Your task to perform on an android device: search for outdoor chairs on article.com Image 0: 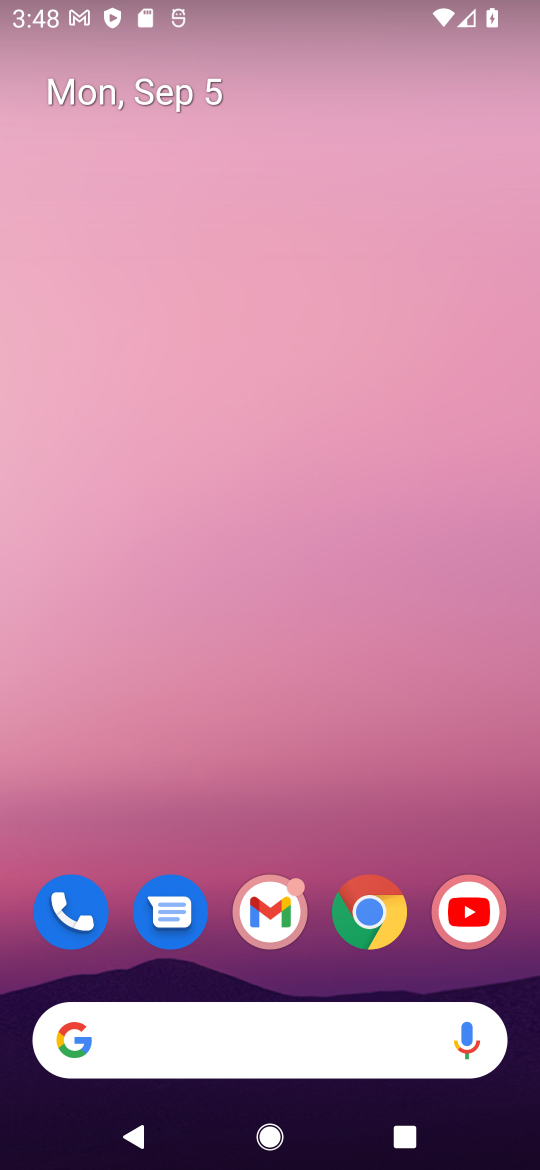
Step 0: click (381, 923)
Your task to perform on an android device: search for outdoor chairs on article.com Image 1: 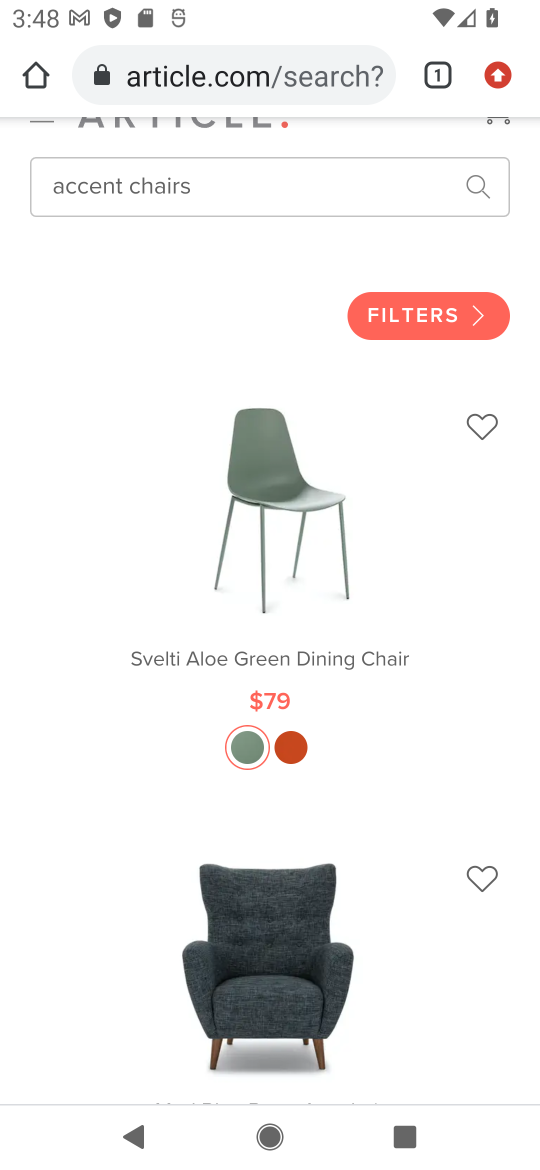
Step 1: click (246, 73)
Your task to perform on an android device: search for outdoor chairs on article.com Image 2: 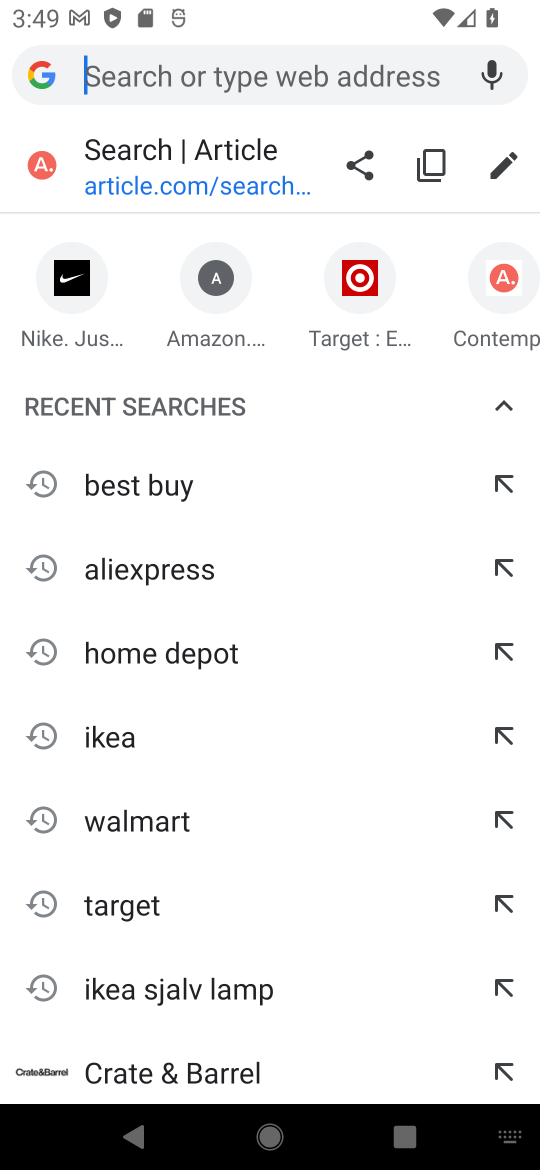
Step 2: press enter
Your task to perform on an android device: search for outdoor chairs on article.com Image 3: 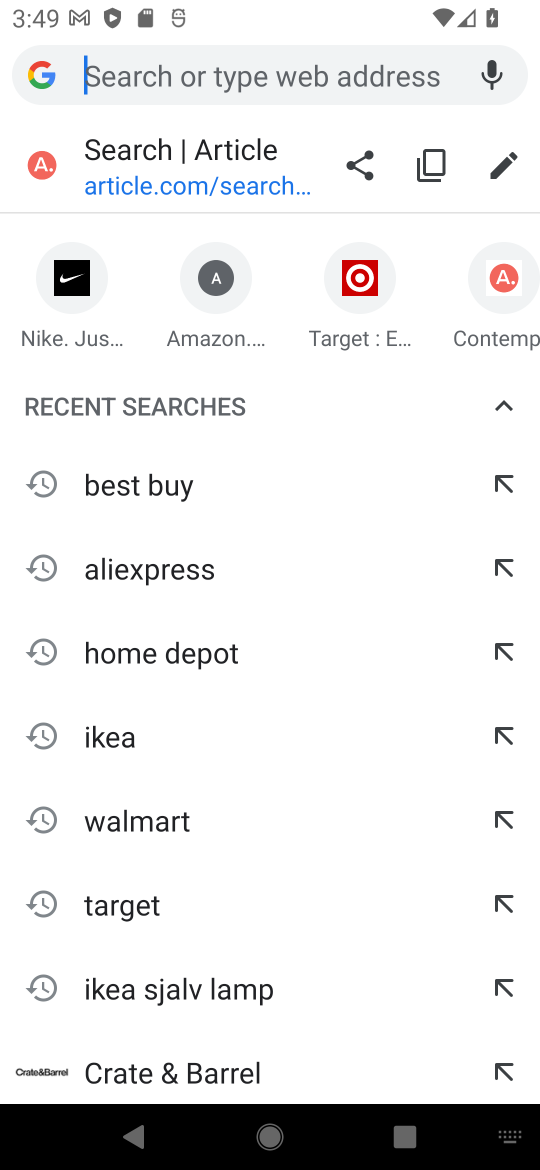
Step 3: type "article.com"
Your task to perform on an android device: search for outdoor chairs on article.com Image 4: 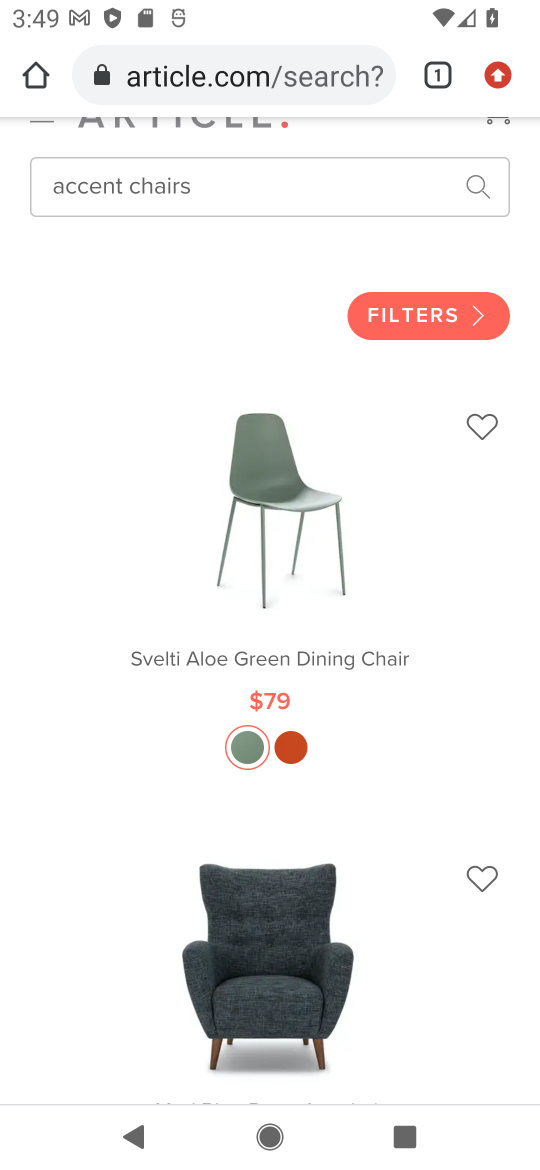
Step 4: press enter
Your task to perform on an android device: search for outdoor chairs on article.com Image 5: 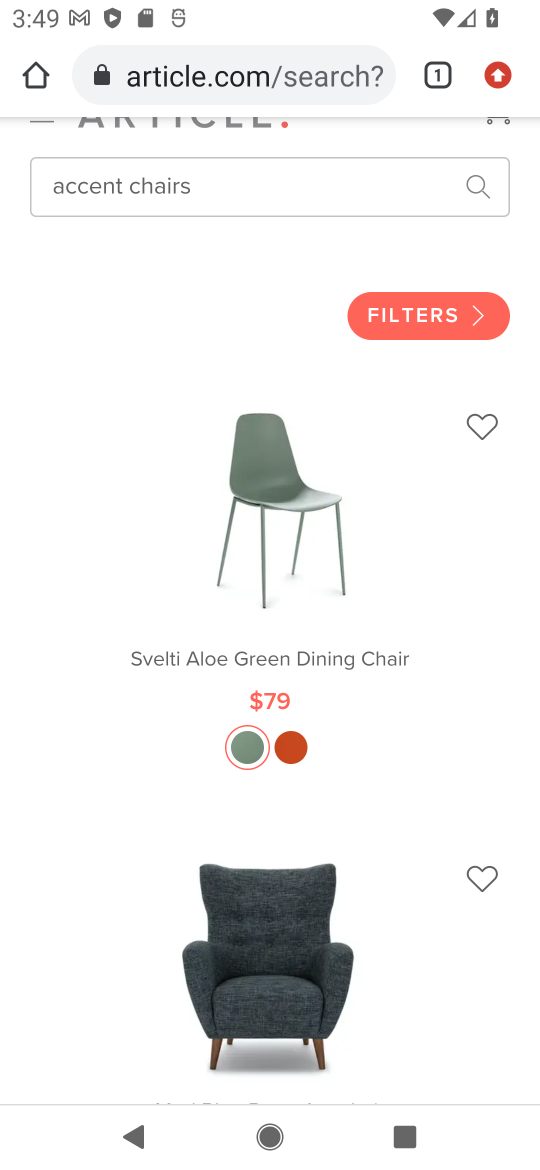
Step 5: drag from (258, 308) to (260, 404)
Your task to perform on an android device: search for outdoor chairs on article.com Image 6: 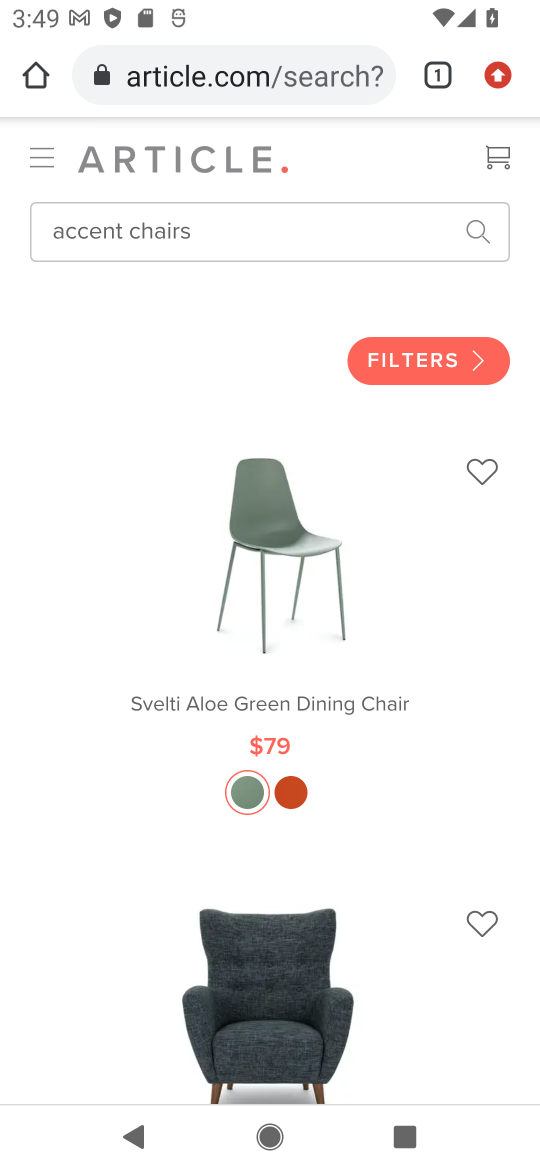
Step 6: click (267, 65)
Your task to perform on an android device: search for outdoor chairs on article.com Image 7: 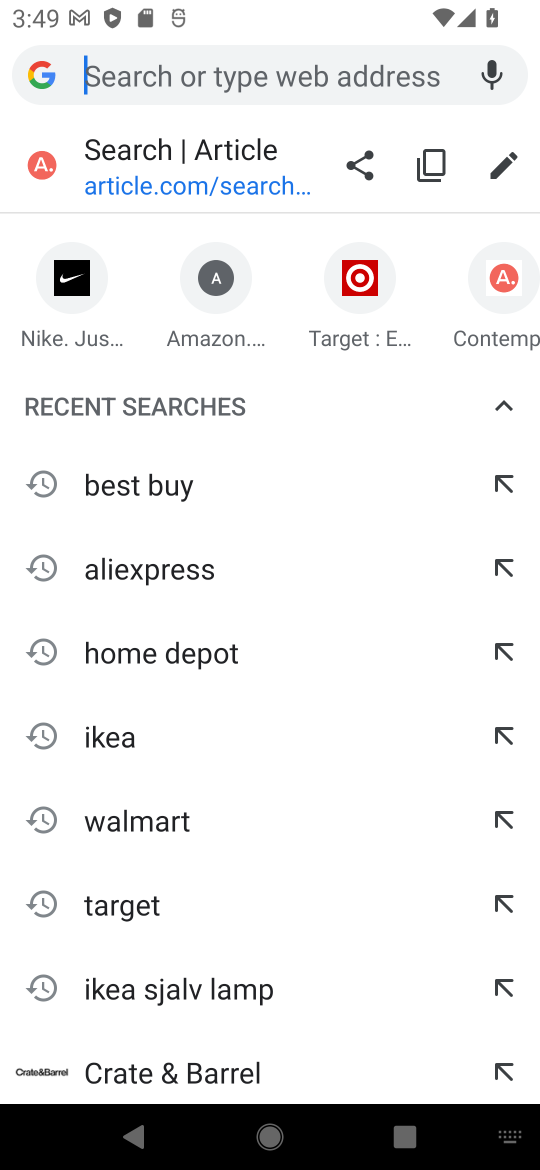
Step 7: type "article.com"
Your task to perform on an android device: search for outdoor chairs on article.com Image 8: 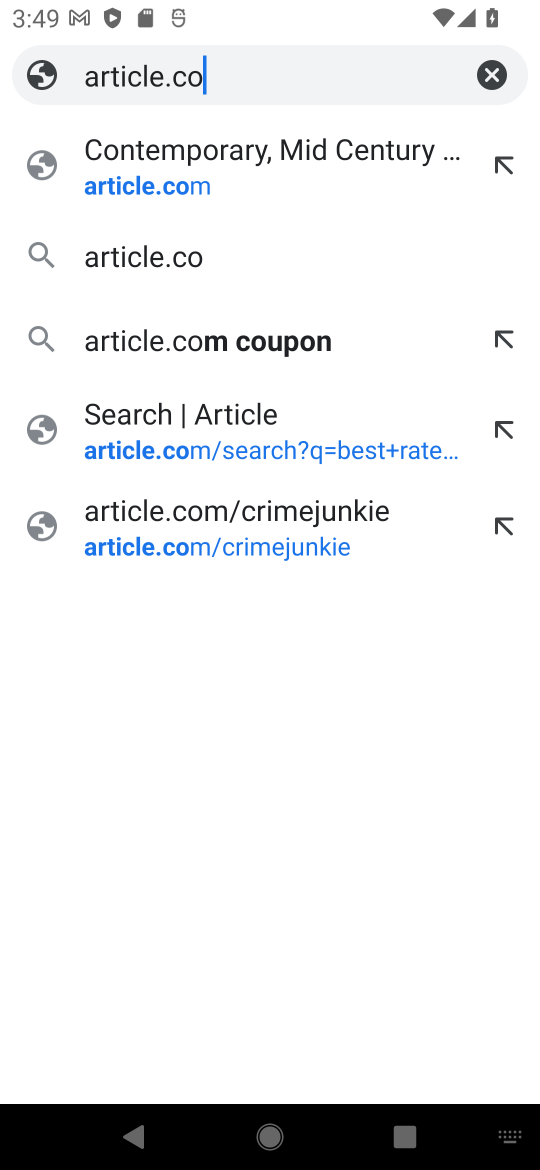
Step 8: type ""
Your task to perform on an android device: search for outdoor chairs on article.com Image 9: 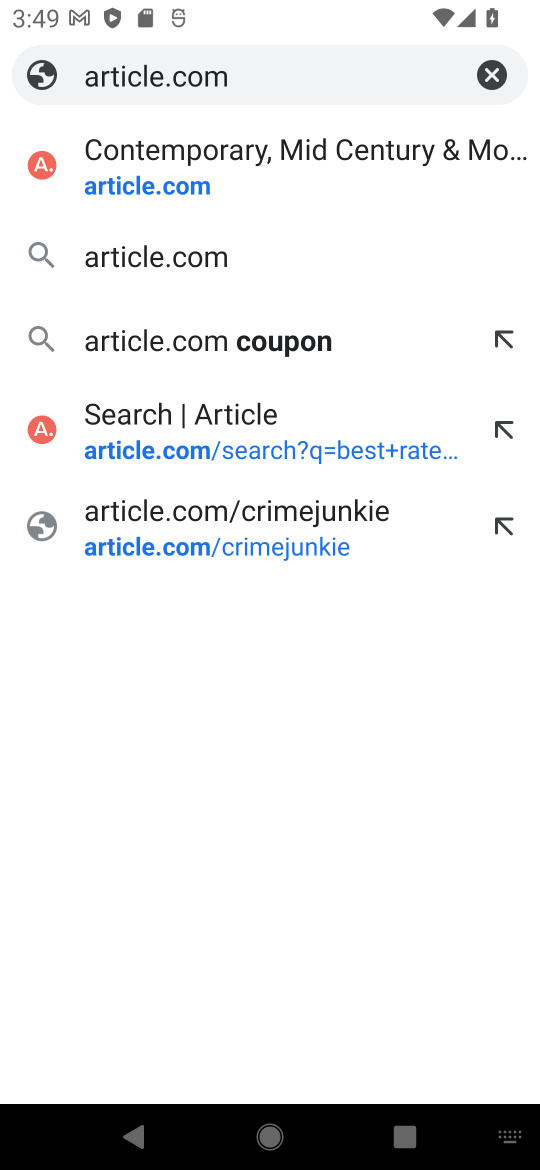
Step 9: press enter
Your task to perform on an android device: search for outdoor chairs on article.com Image 10: 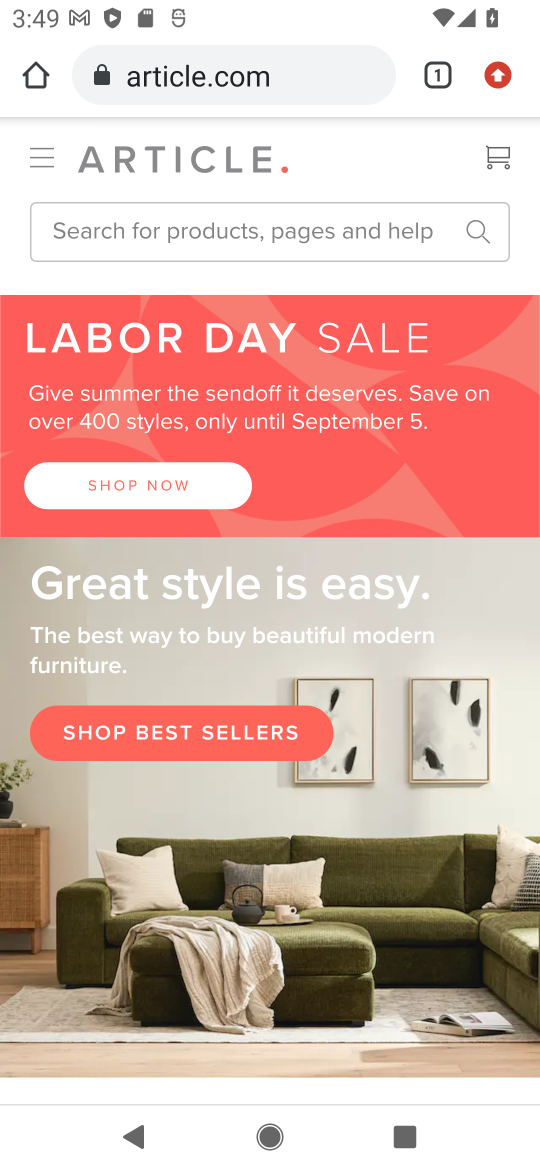
Step 10: click (276, 216)
Your task to perform on an android device: search for outdoor chairs on article.com Image 11: 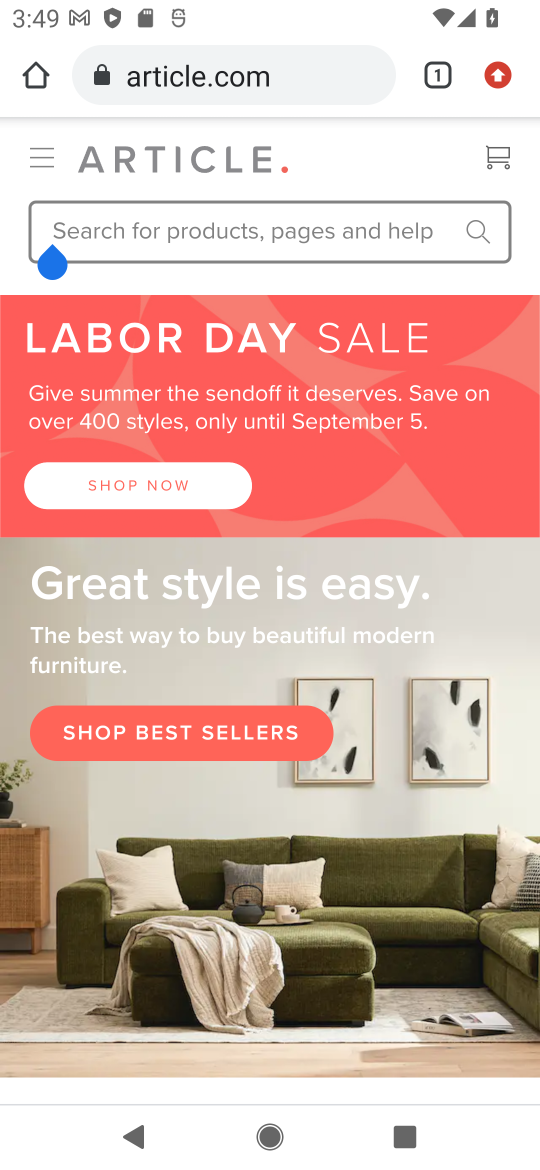
Step 11: type "outdoor chairs"
Your task to perform on an android device: search for outdoor chairs on article.com Image 12: 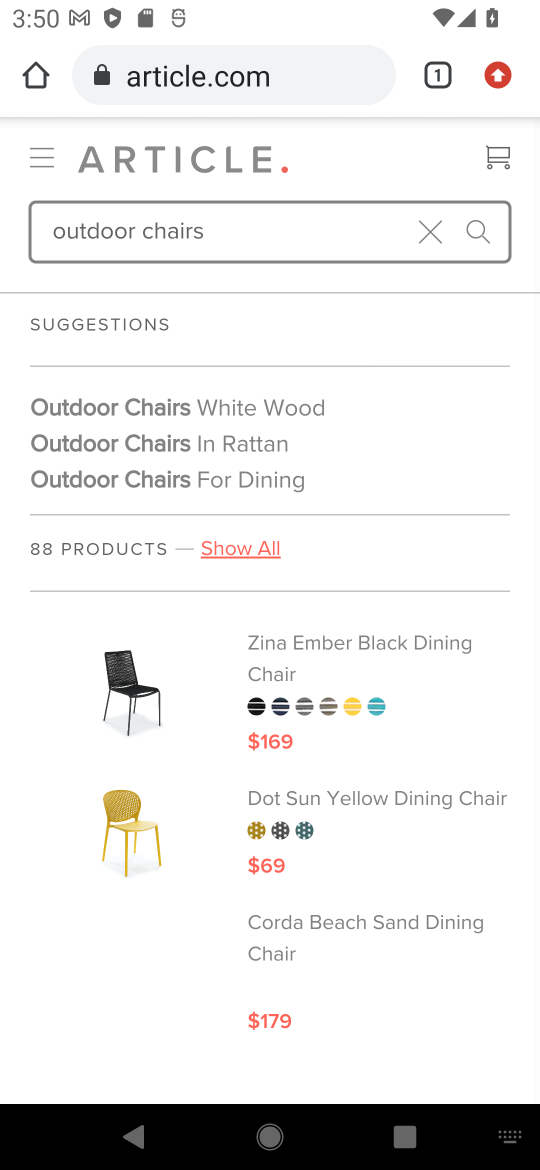
Step 12: press enter
Your task to perform on an android device: search for outdoor chairs on article.com Image 13: 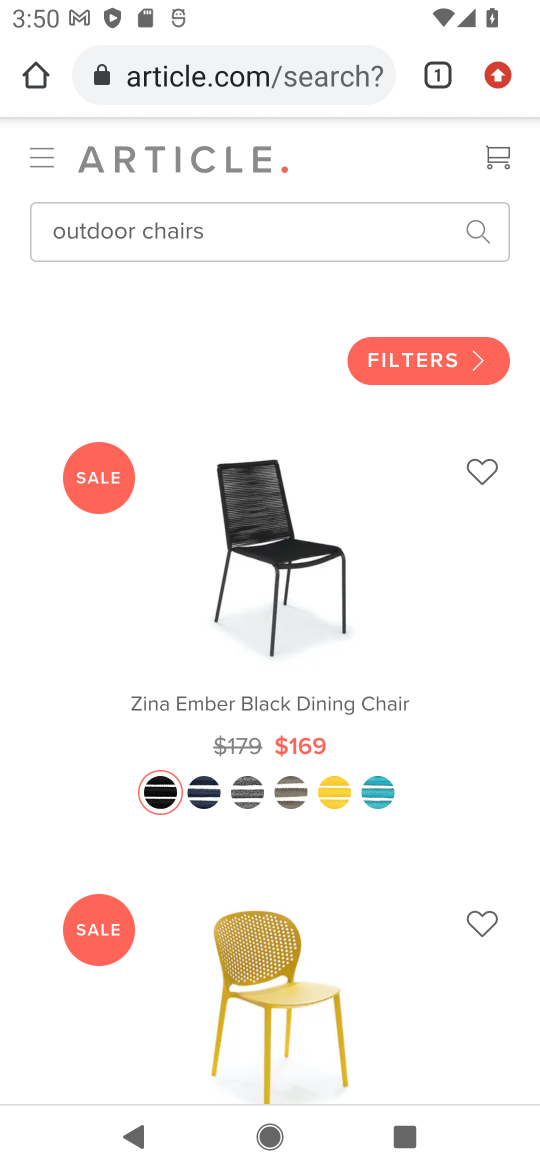
Step 13: task complete